Your task to perform on an android device: Open Chrome and go to settings Image 0: 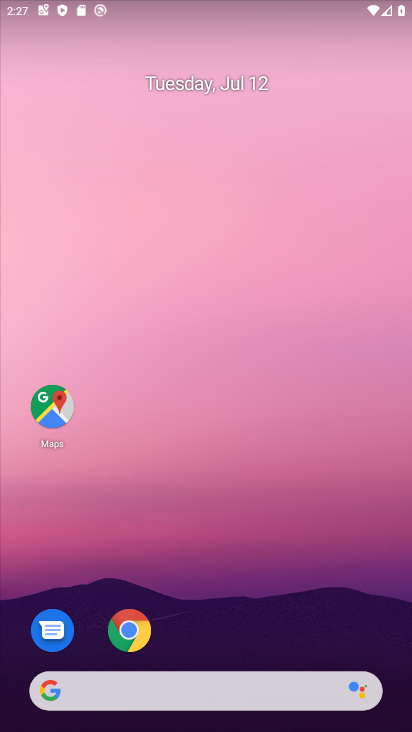
Step 0: click (131, 630)
Your task to perform on an android device: Open Chrome and go to settings Image 1: 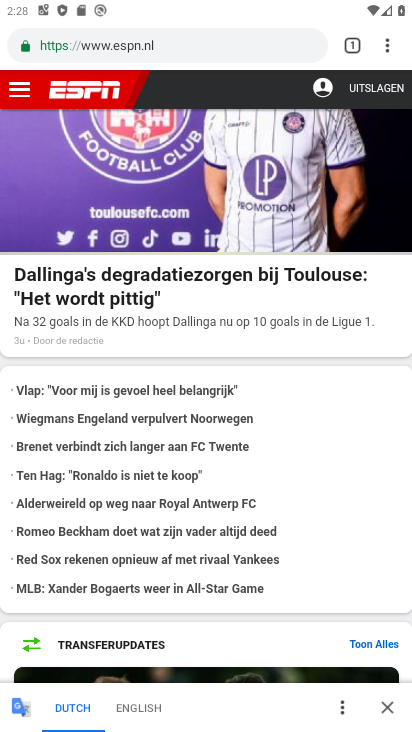
Step 1: click (386, 48)
Your task to perform on an android device: Open Chrome and go to settings Image 2: 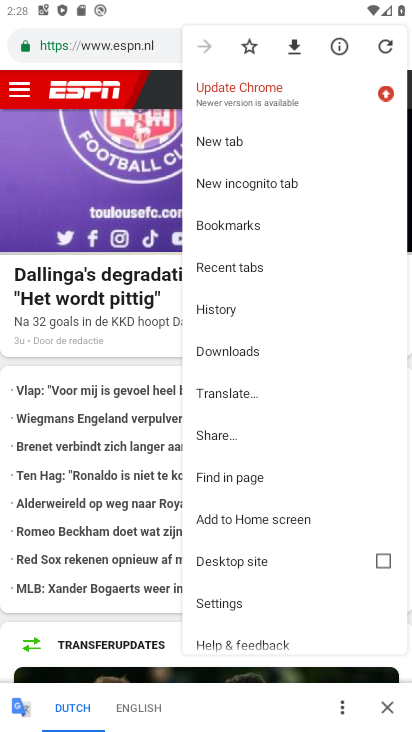
Step 2: click (219, 600)
Your task to perform on an android device: Open Chrome and go to settings Image 3: 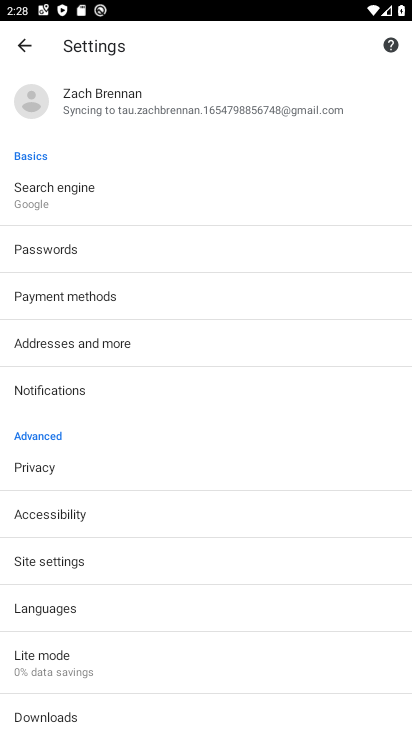
Step 3: task complete